Your task to perform on an android device: turn on notifications settings in the gmail app Image 0: 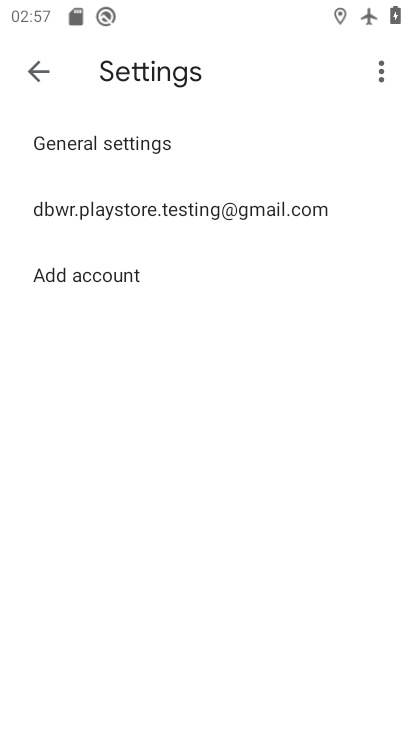
Step 0: press home button
Your task to perform on an android device: turn on notifications settings in the gmail app Image 1: 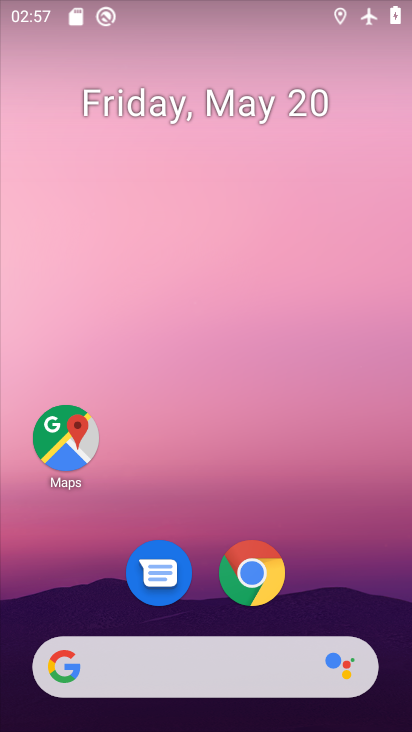
Step 1: drag from (208, 610) to (221, 208)
Your task to perform on an android device: turn on notifications settings in the gmail app Image 2: 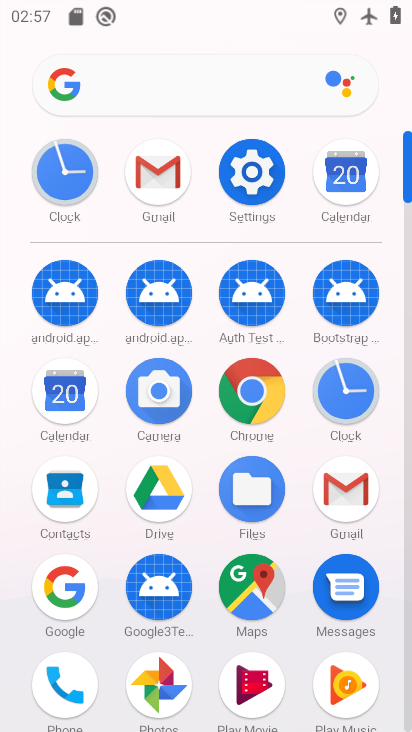
Step 2: click (360, 483)
Your task to perform on an android device: turn on notifications settings in the gmail app Image 3: 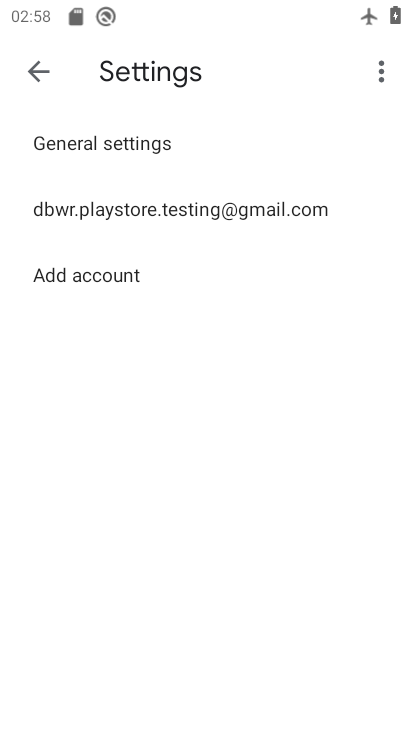
Step 3: click (187, 216)
Your task to perform on an android device: turn on notifications settings in the gmail app Image 4: 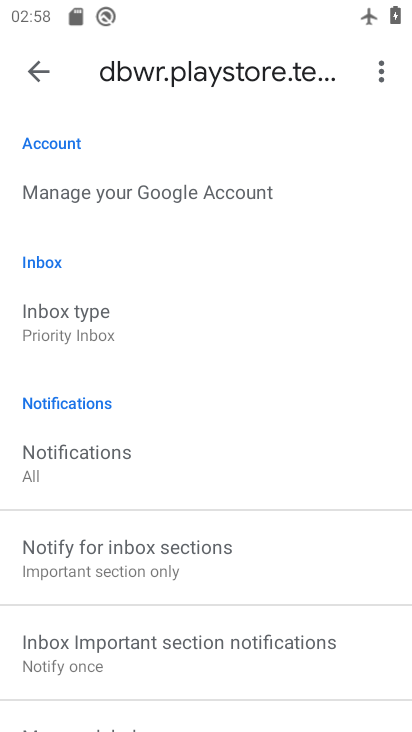
Step 4: drag from (184, 642) to (213, 350)
Your task to perform on an android device: turn on notifications settings in the gmail app Image 5: 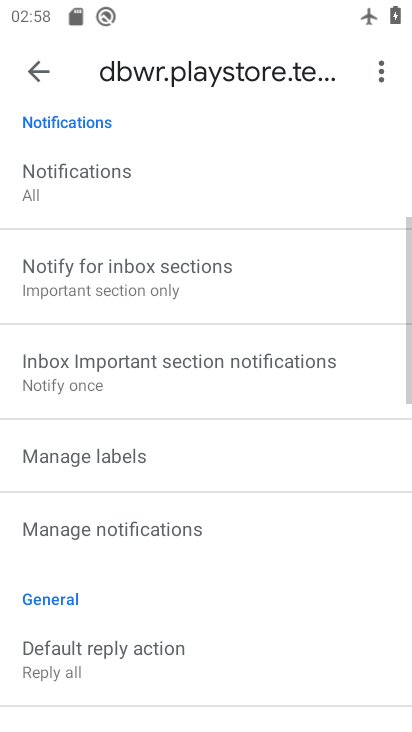
Step 5: click (156, 540)
Your task to perform on an android device: turn on notifications settings in the gmail app Image 6: 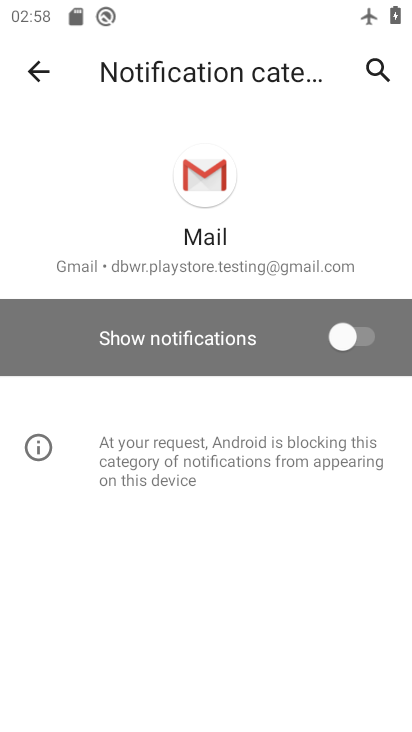
Step 6: click (353, 329)
Your task to perform on an android device: turn on notifications settings in the gmail app Image 7: 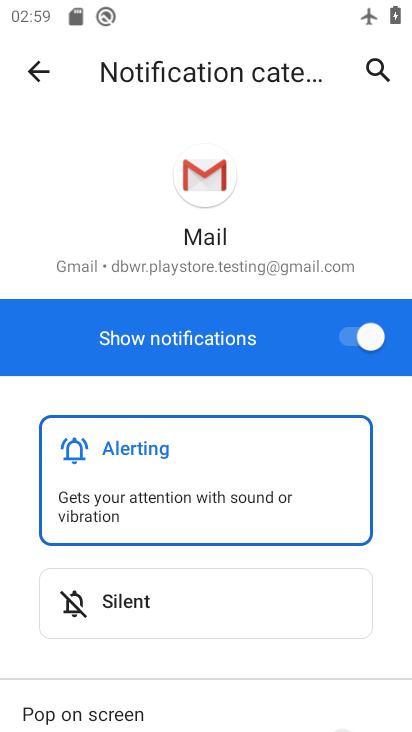
Step 7: task complete